Your task to perform on an android device: Go to location settings Image 0: 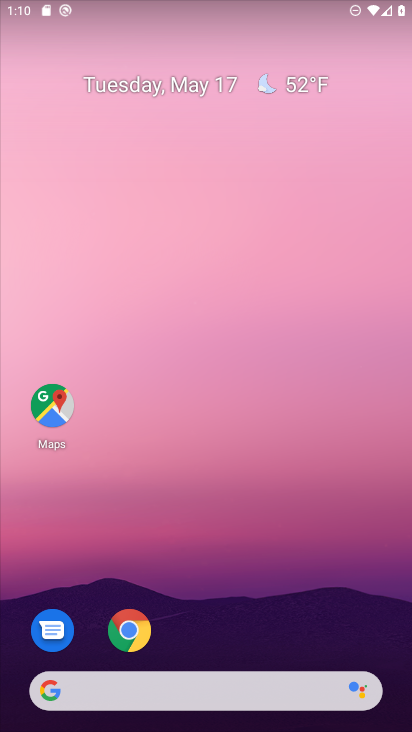
Step 0: drag from (232, 610) to (330, 128)
Your task to perform on an android device: Go to location settings Image 1: 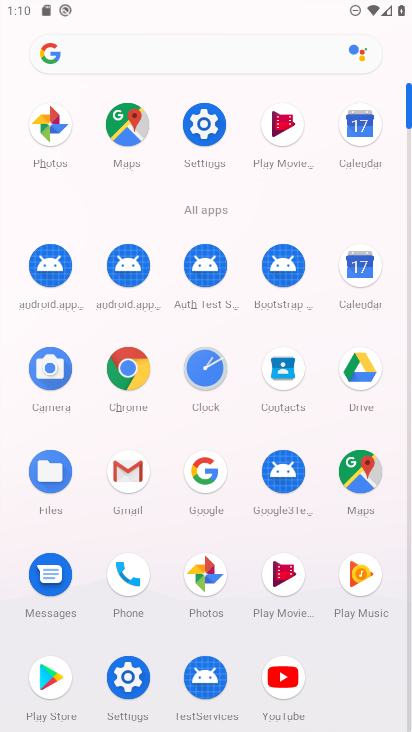
Step 1: click (206, 125)
Your task to perform on an android device: Go to location settings Image 2: 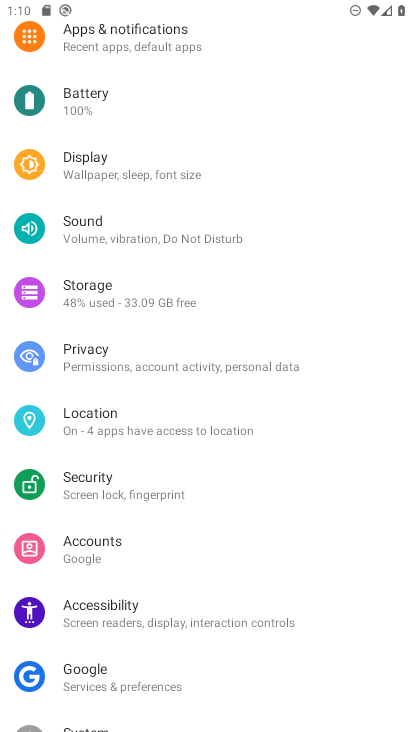
Step 2: click (93, 418)
Your task to perform on an android device: Go to location settings Image 3: 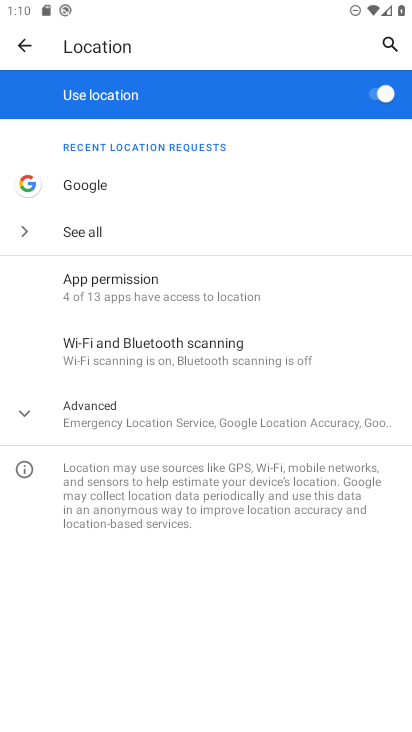
Step 3: task complete